Your task to perform on an android device: What's the weather going to be this weekend? Image 0: 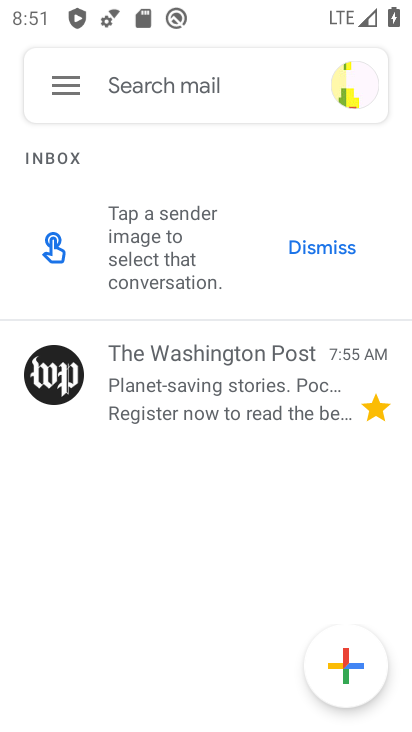
Step 0: press home button
Your task to perform on an android device: What's the weather going to be this weekend? Image 1: 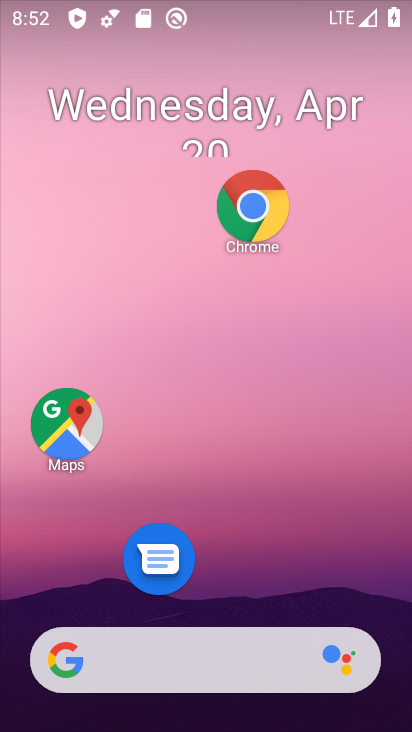
Step 1: click (258, 224)
Your task to perform on an android device: What's the weather going to be this weekend? Image 2: 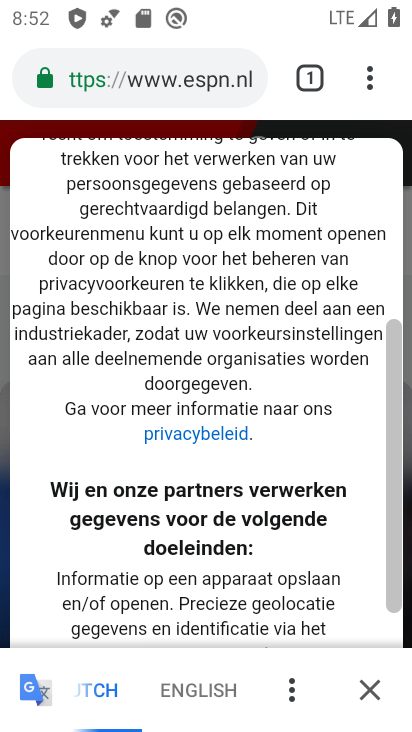
Step 2: click (155, 78)
Your task to perform on an android device: What's the weather going to be this weekend? Image 3: 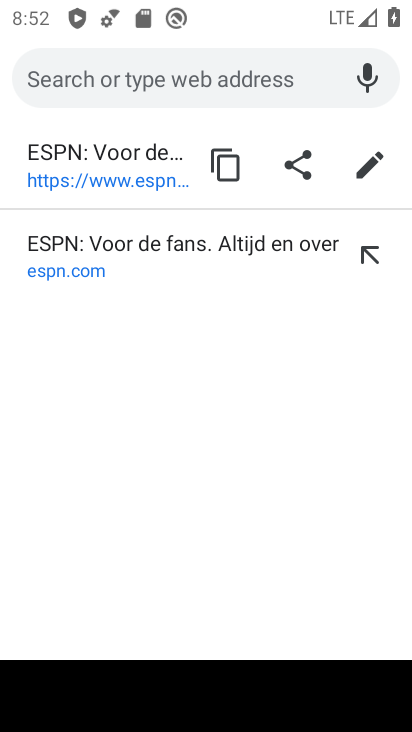
Step 3: type "what's the weather going to be this weekend"
Your task to perform on an android device: What's the weather going to be this weekend? Image 4: 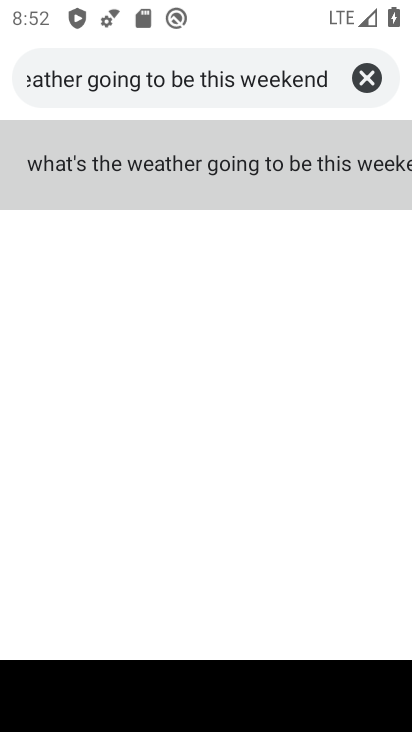
Step 4: click (190, 170)
Your task to perform on an android device: What's the weather going to be this weekend? Image 5: 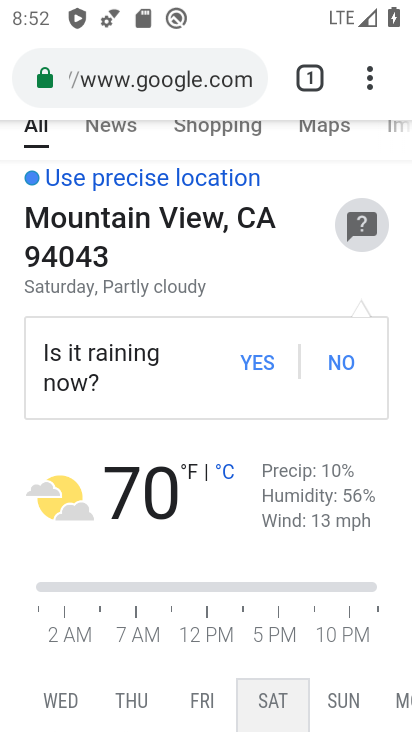
Step 5: task complete